Your task to perform on an android device: turn off improve location accuracy Image 0: 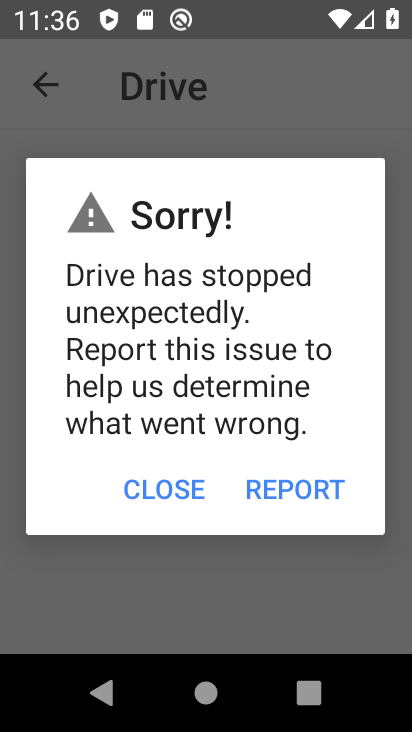
Step 0: press home button
Your task to perform on an android device: turn off improve location accuracy Image 1: 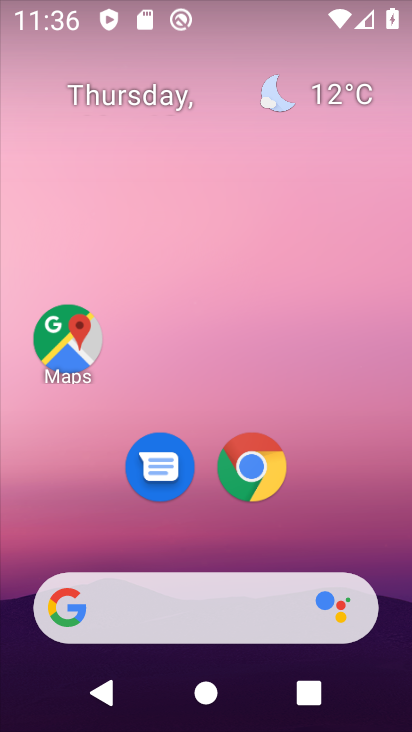
Step 1: drag from (354, 488) to (411, 70)
Your task to perform on an android device: turn off improve location accuracy Image 2: 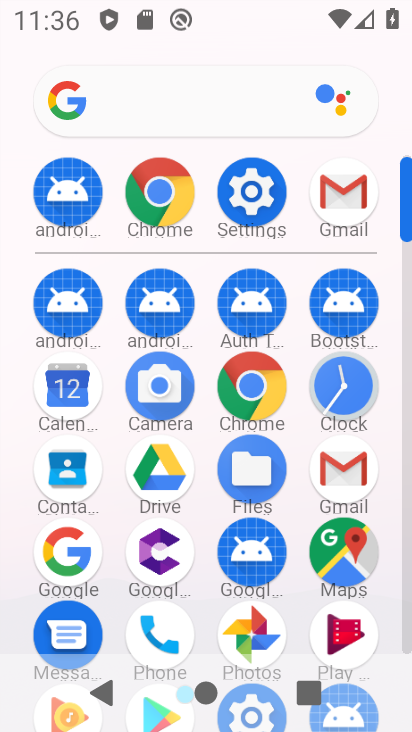
Step 2: click (276, 189)
Your task to perform on an android device: turn off improve location accuracy Image 3: 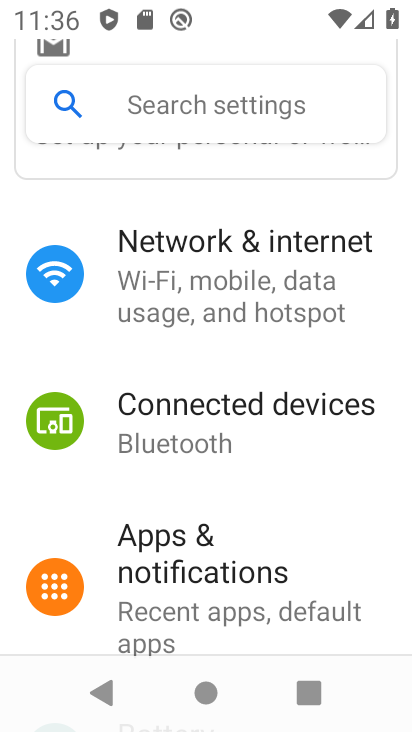
Step 3: drag from (225, 666) to (340, 205)
Your task to perform on an android device: turn off improve location accuracy Image 4: 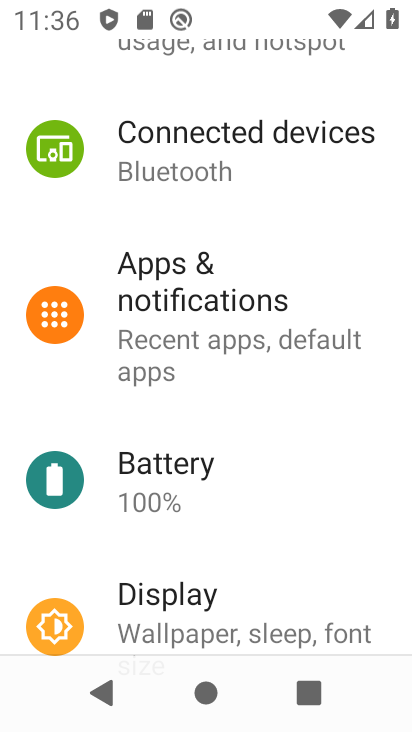
Step 4: drag from (221, 576) to (269, 195)
Your task to perform on an android device: turn off improve location accuracy Image 5: 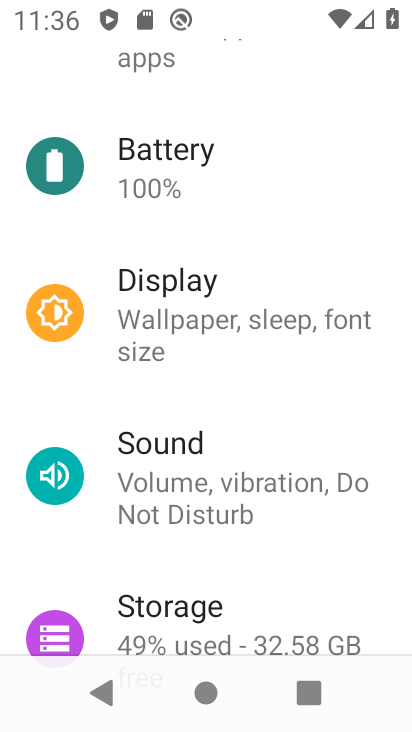
Step 5: drag from (202, 541) to (262, 264)
Your task to perform on an android device: turn off improve location accuracy Image 6: 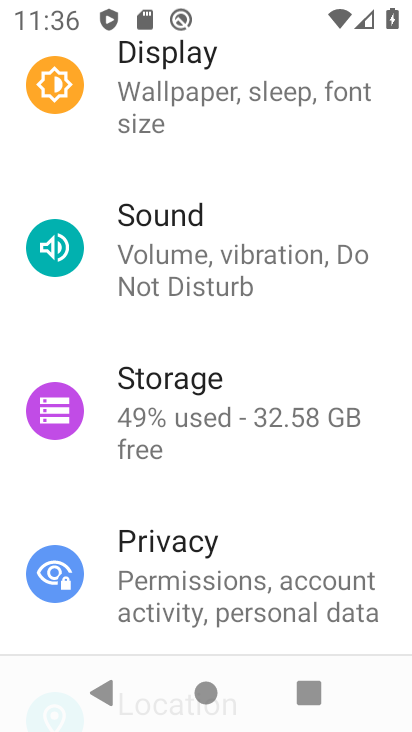
Step 6: drag from (210, 470) to (278, 217)
Your task to perform on an android device: turn off improve location accuracy Image 7: 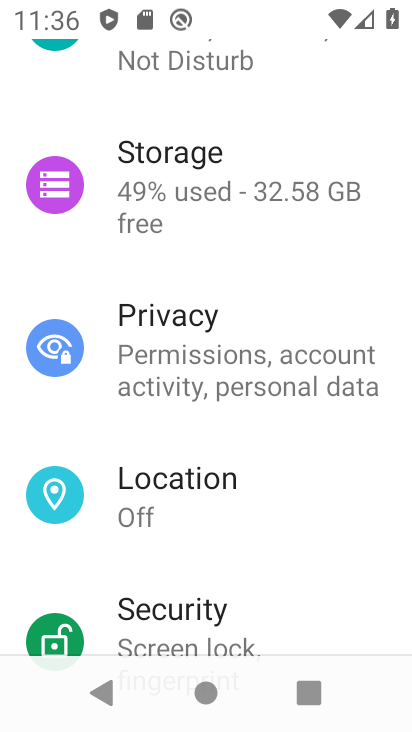
Step 7: click (247, 497)
Your task to perform on an android device: turn off improve location accuracy Image 8: 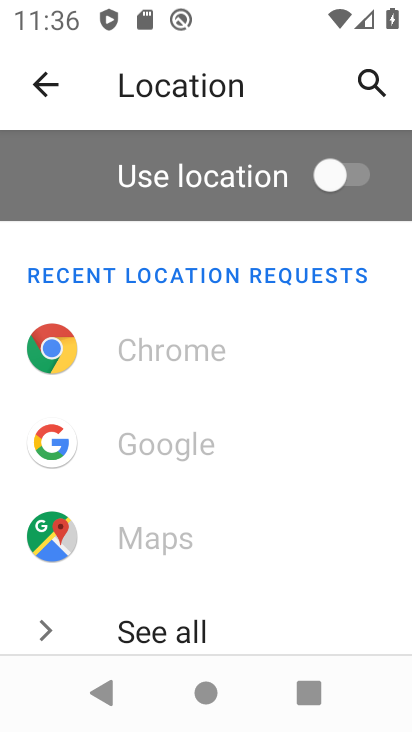
Step 8: drag from (258, 491) to (330, 132)
Your task to perform on an android device: turn off improve location accuracy Image 9: 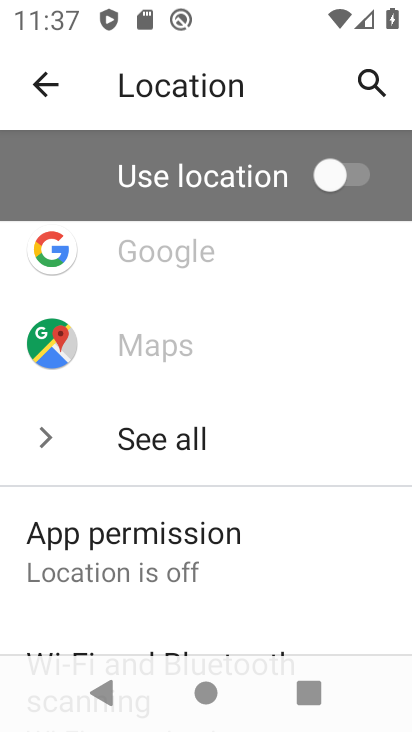
Step 9: drag from (240, 578) to (300, 198)
Your task to perform on an android device: turn off improve location accuracy Image 10: 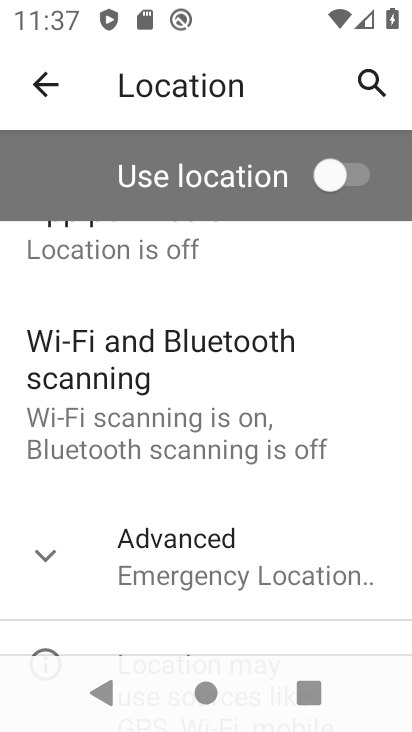
Step 10: drag from (270, 495) to (327, 202)
Your task to perform on an android device: turn off improve location accuracy Image 11: 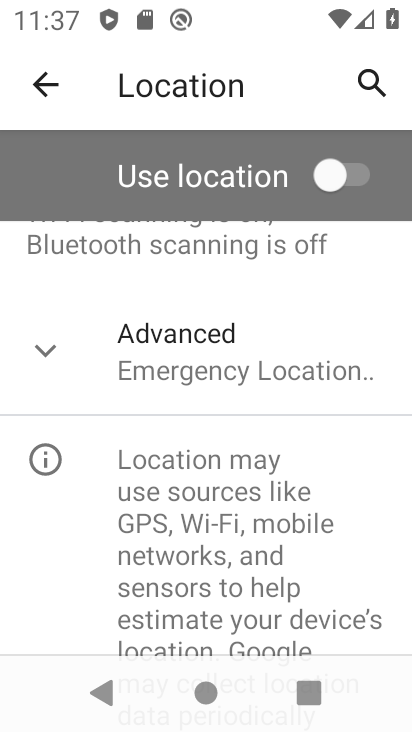
Step 11: click (240, 355)
Your task to perform on an android device: turn off improve location accuracy Image 12: 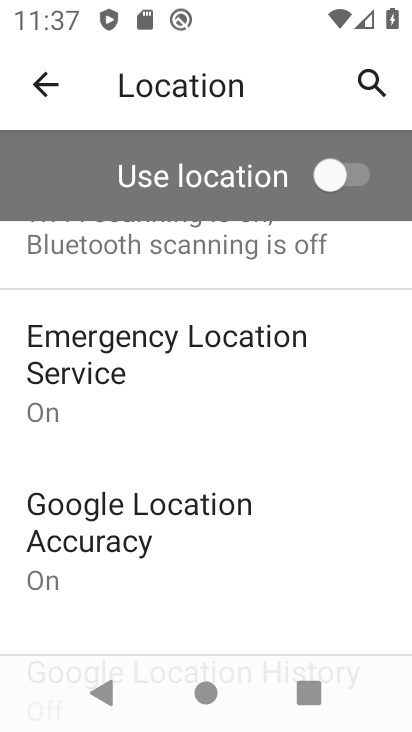
Step 12: click (124, 549)
Your task to perform on an android device: turn off improve location accuracy Image 13: 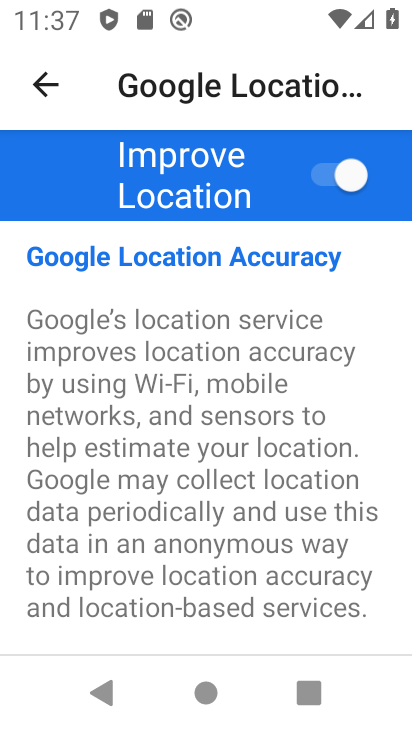
Step 13: click (332, 184)
Your task to perform on an android device: turn off improve location accuracy Image 14: 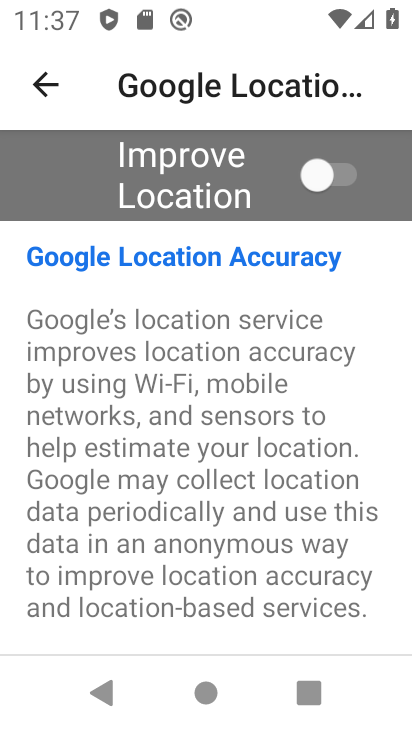
Step 14: task complete